Your task to perform on an android device: turn off translation in the chrome app Image 0: 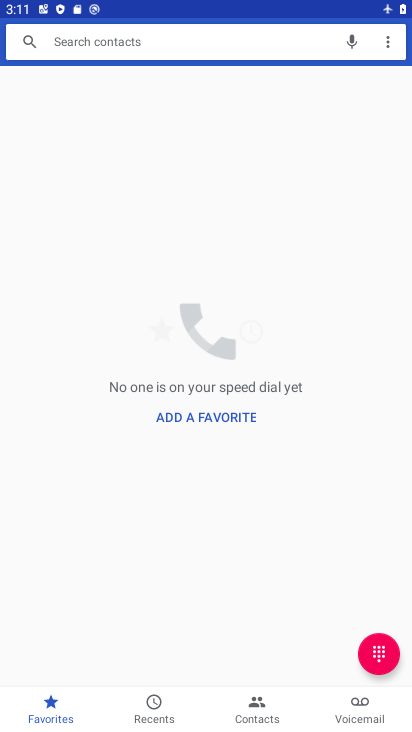
Step 0: press home button
Your task to perform on an android device: turn off translation in the chrome app Image 1: 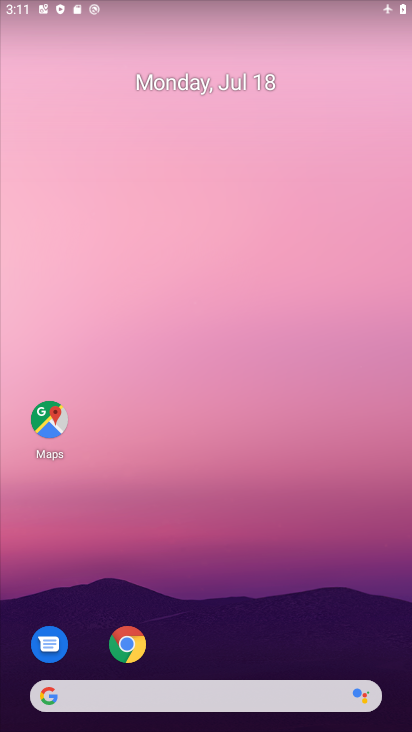
Step 1: click (132, 644)
Your task to perform on an android device: turn off translation in the chrome app Image 2: 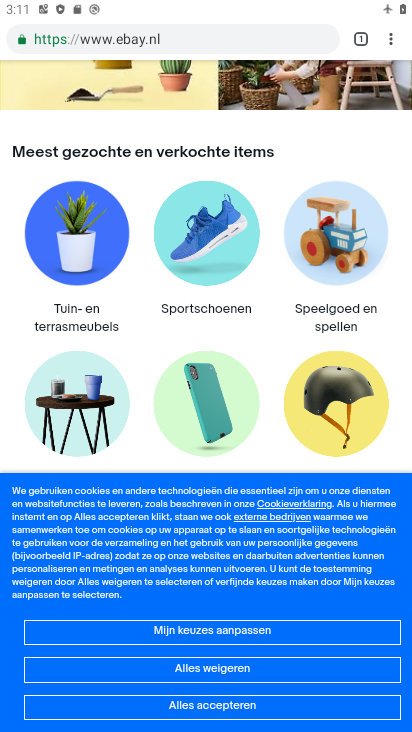
Step 2: click (389, 44)
Your task to perform on an android device: turn off translation in the chrome app Image 3: 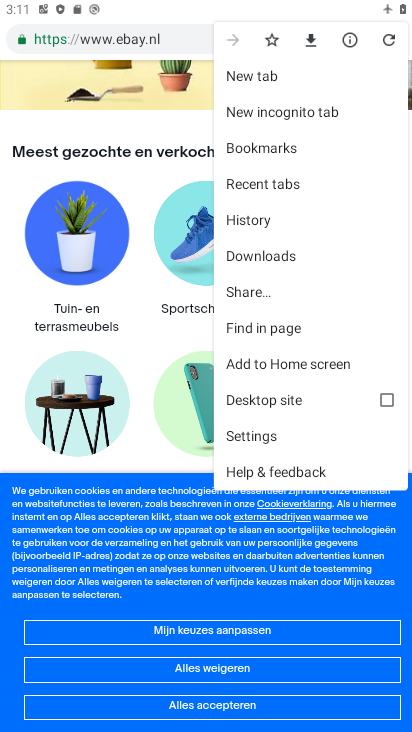
Step 3: click (255, 432)
Your task to perform on an android device: turn off translation in the chrome app Image 4: 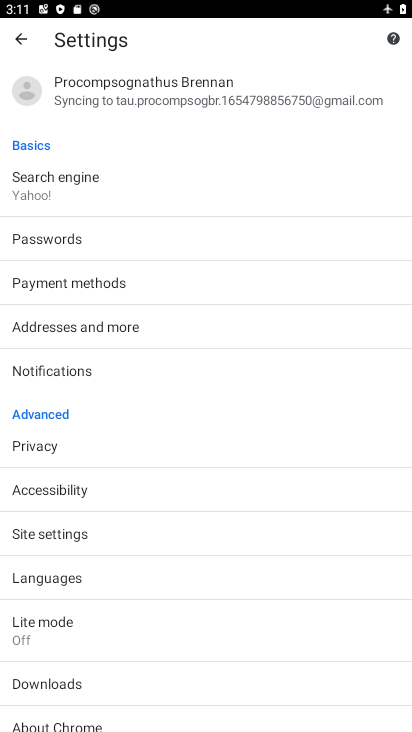
Step 4: click (39, 572)
Your task to perform on an android device: turn off translation in the chrome app Image 5: 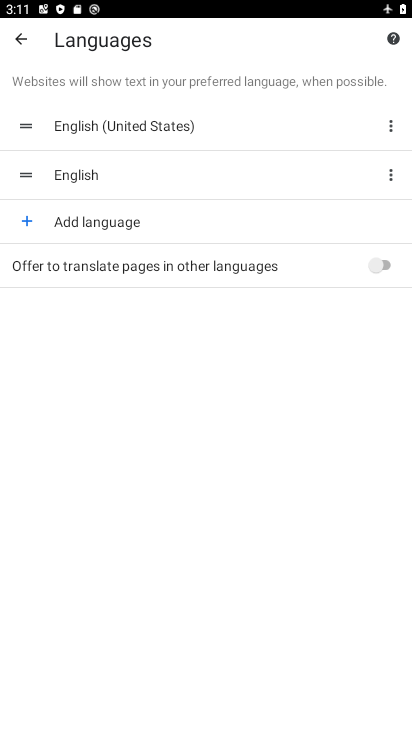
Step 5: task complete